Your task to perform on an android device: Open CNN.com Image 0: 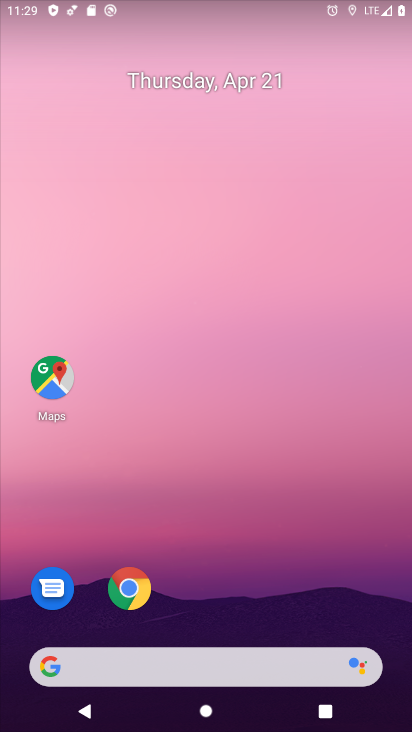
Step 0: drag from (284, 693) to (271, 195)
Your task to perform on an android device: Open CNN.com Image 1: 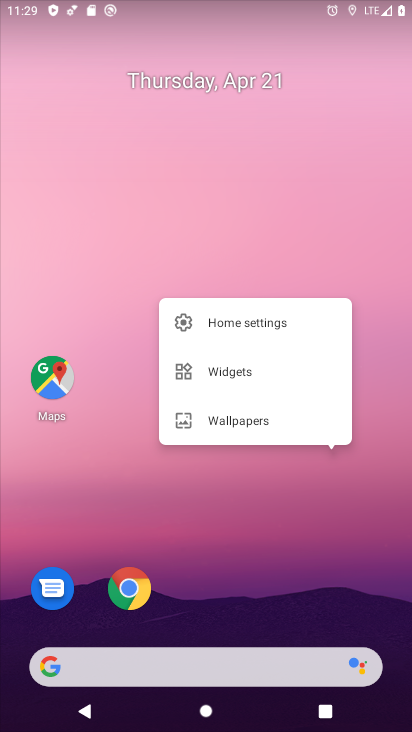
Step 1: click (311, 219)
Your task to perform on an android device: Open CNN.com Image 2: 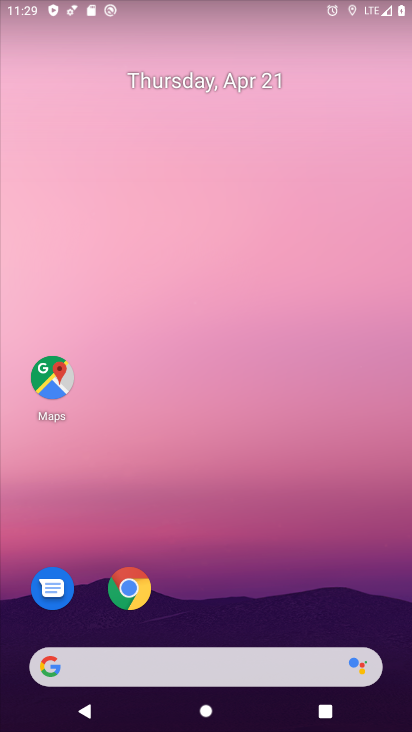
Step 2: drag from (243, 681) to (254, 95)
Your task to perform on an android device: Open CNN.com Image 3: 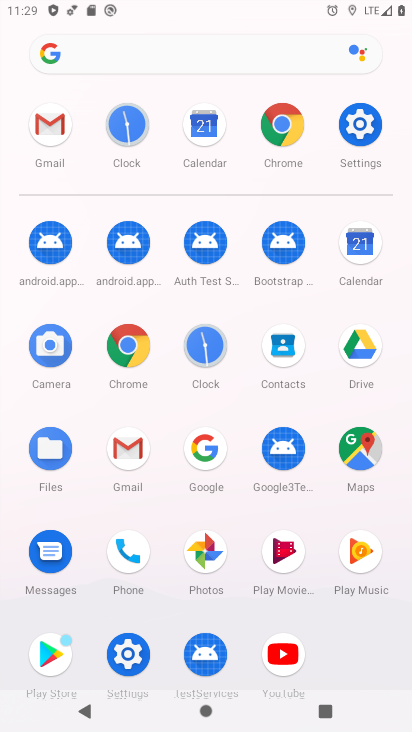
Step 3: click (279, 122)
Your task to perform on an android device: Open CNN.com Image 4: 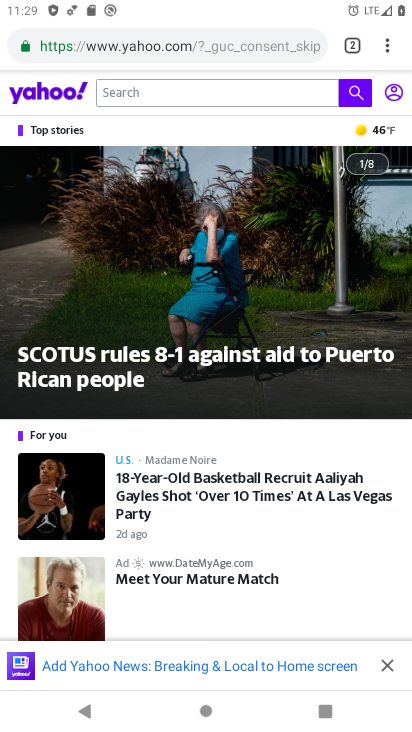
Step 4: click (383, 45)
Your task to perform on an android device: Open CNN.com Image 5: 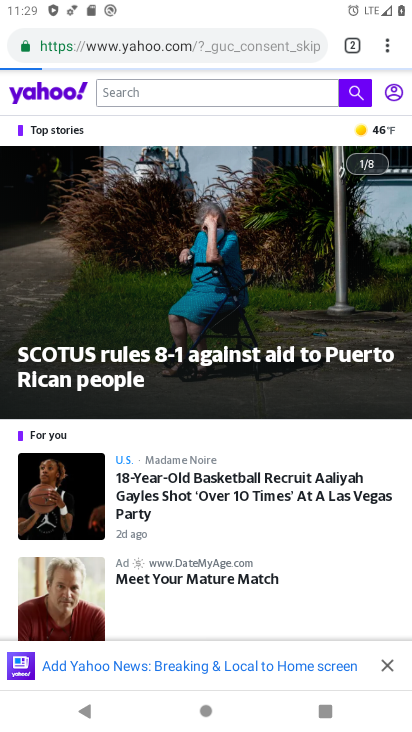
Step 5: click (388, 43)
Your task to perform on an android device: Open CNN.com Image 6: 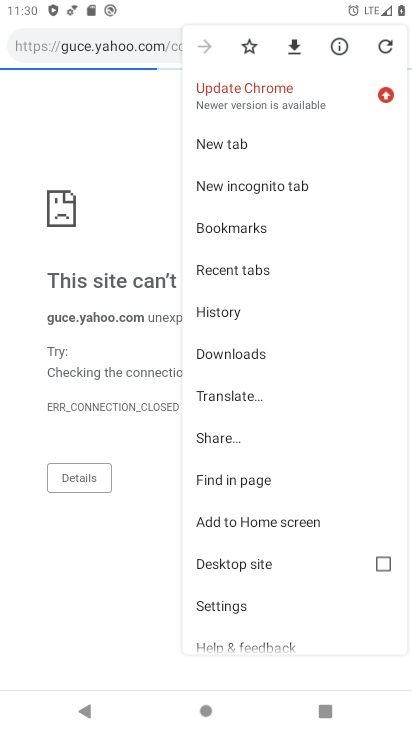
Step 6: click (122, 39)
Your task to perform on an android device: Open CNN.com Image 7: 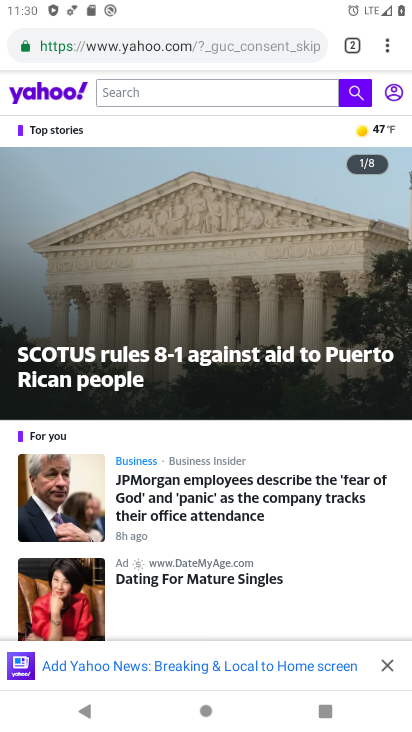
Step 7: click (165, 51)
Your task to perform on an android device: Open CNN.com Image 8: 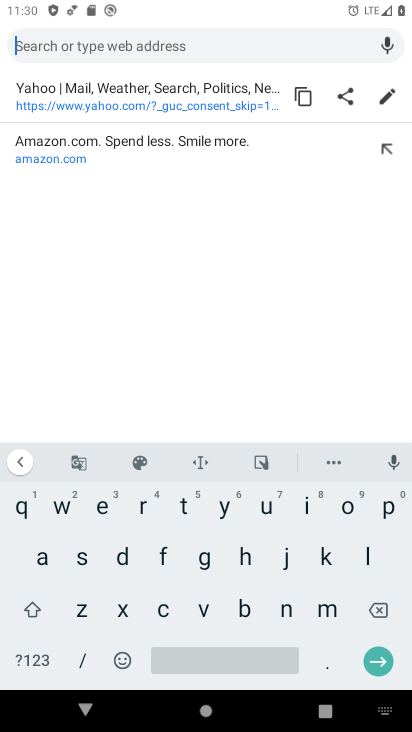
Step 8: click (165, 617)
Your task to perform on an android device: Open CNN.com Image 9: 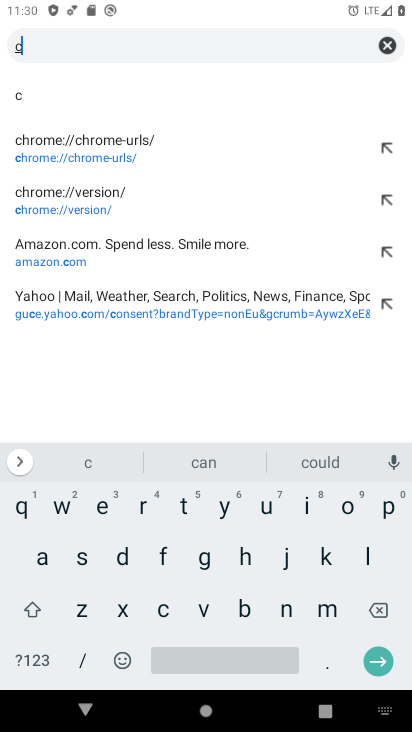
Step 9: click (281, 609)
Your task to perform on an android device: Open CNN.com Image 10: 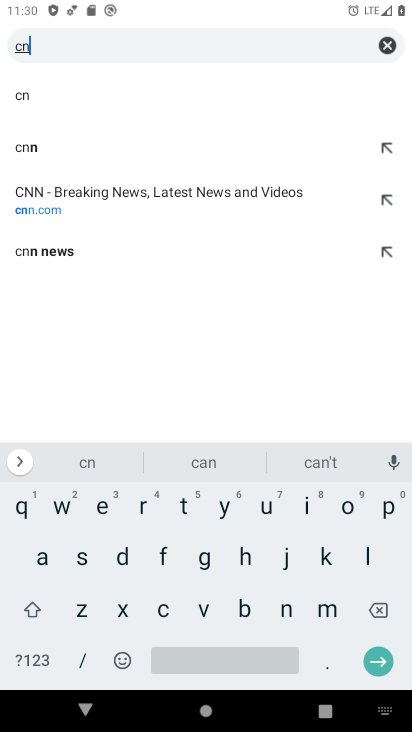
Step 10: click (58, 192)
Your task to perform on an android device: Open CNN.com Image 11: 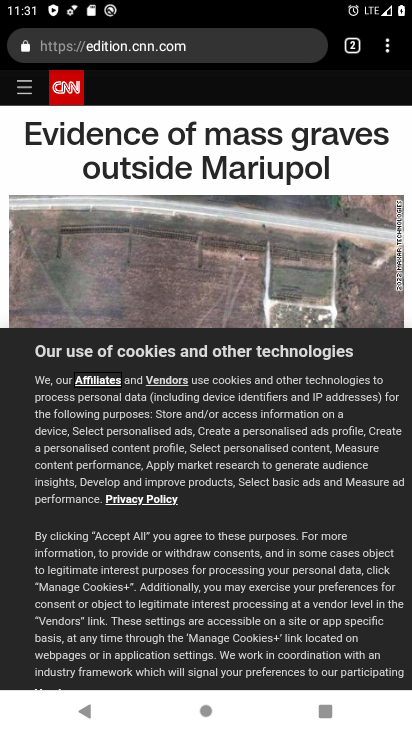
Step 11: task complete